Your task to perform on an android device: change the upload size in google photos Image 0: 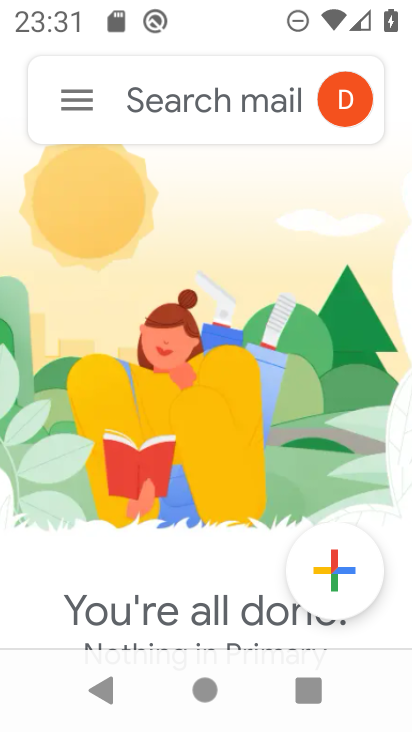
Step 0: press home button
Your task to perform on an android device: change the upload size in google photos Image 1: 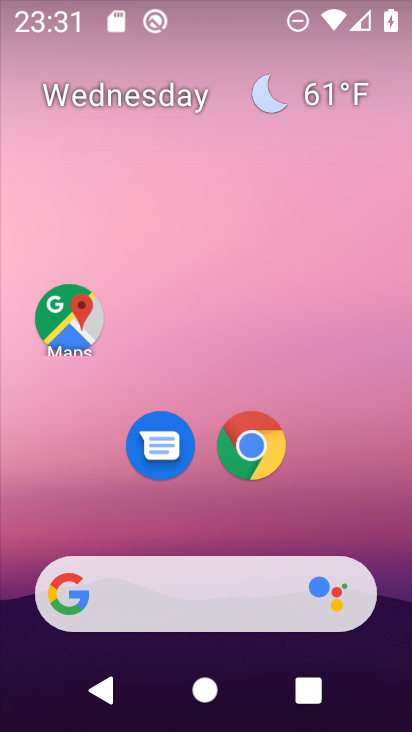
Step 1: drag from (373, 499) to (374, 133)
Your task to perform on an android device: change the upload size in google photos Image 2: 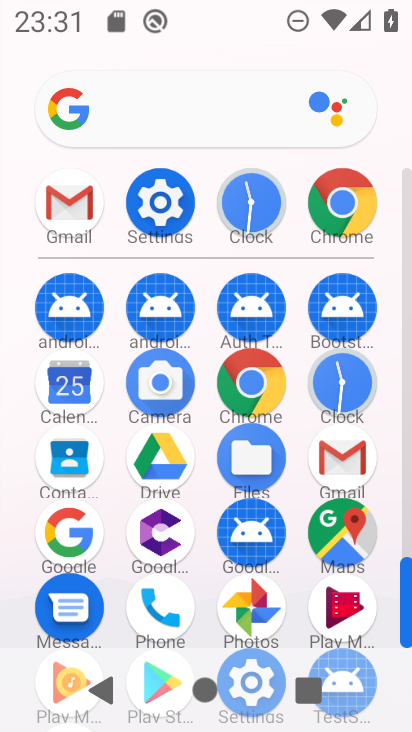
Step 2: click (256, 591)
Your task to perform on an android device: change the upload size in google photos Image 3: 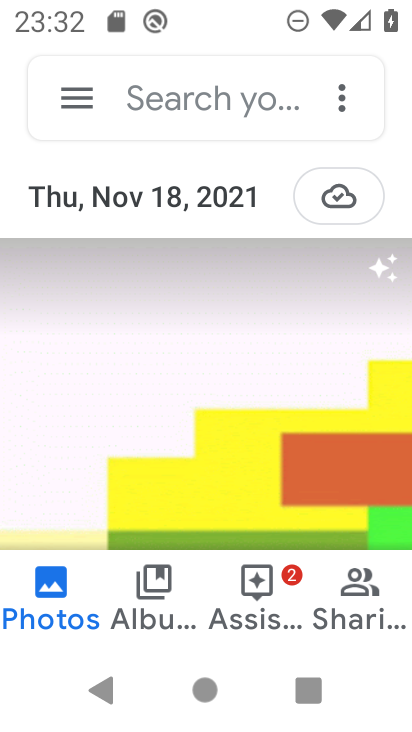
Step 3: click (89, 107)
Your task to perform on an android device: change the upload size in google photos Image 4: 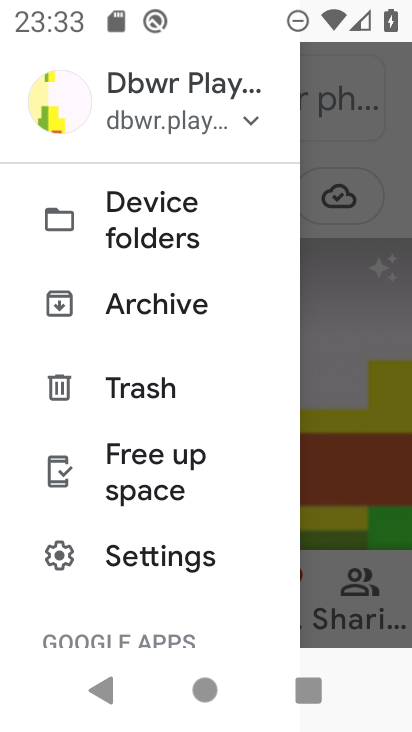
Step 4: click (161, 568)
Your task to perform on an android device: change the upload size in google photos Image 5: 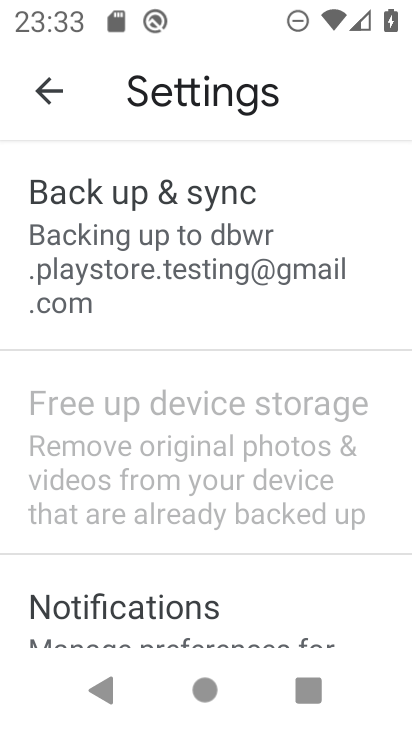
Step 5: click (183, 286)
Your task to perform on an android device: change the upload size in google photos Image 6: 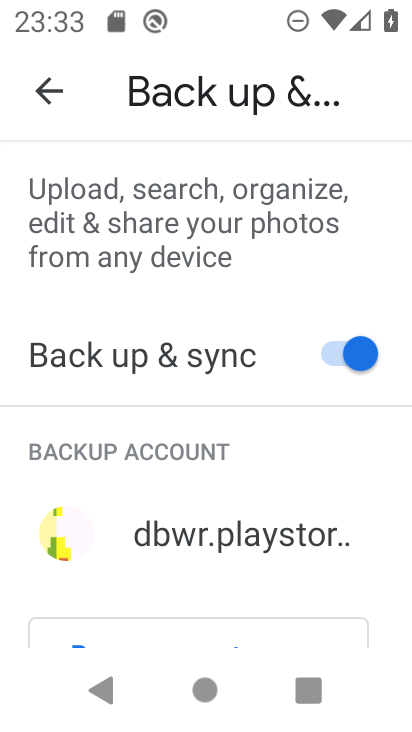
Step 6: drag from (153, 435) to (196, 138)
Your task to perform on an android device: change the upload size in google photos Image 7: 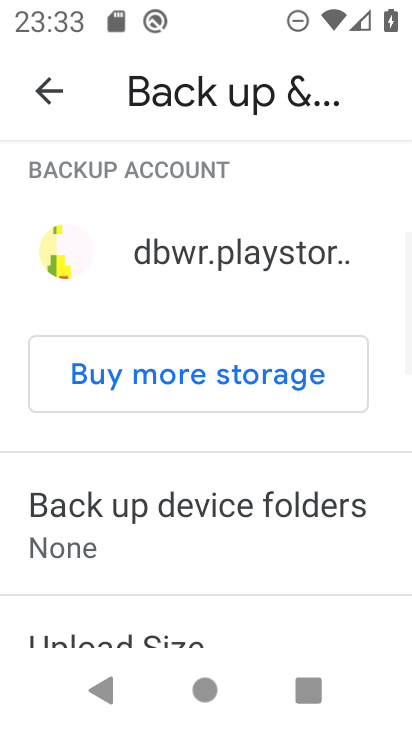
Step 7: drag from (211, 506) to (206, 257)
Your task to perform on an android device: change the upload size in google photos Image 8: 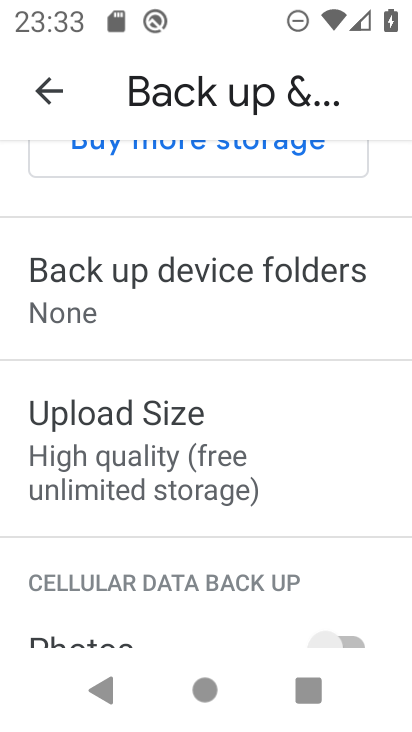
Step 8: drag from (186, 567) to (211, 251)
Your task to perform on an android device: change the upload size in google photos Image 9: 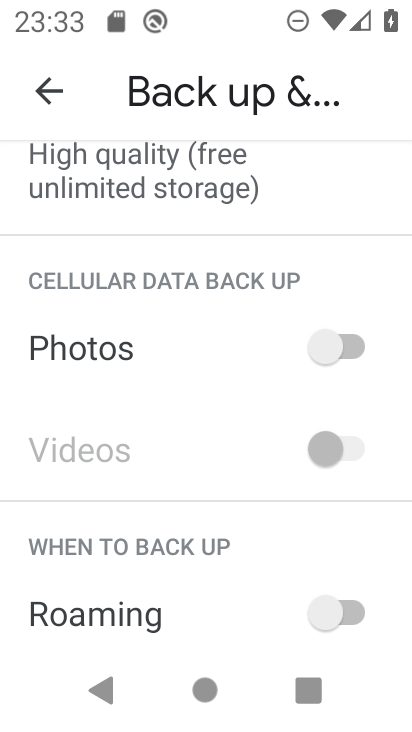
Step 9: drag from (197, 563) to (201, 312)
Your task to perform on an android device: change the upload size in google photos Image 10: 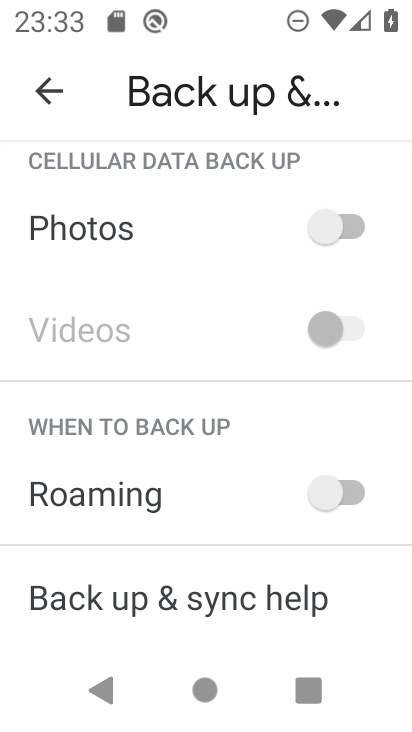
Step 10: drag from (219, 524) to (220, 208)
Your task to perform on an android device: change the upload size in google photos Image 11: 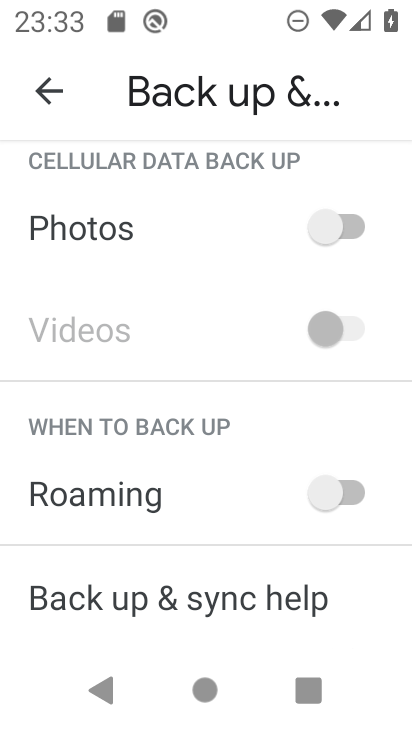
Step 11: drag from (204, 205) to (232, 586)
Your task to perform on an android device: change the upload size in google photos Image 12: 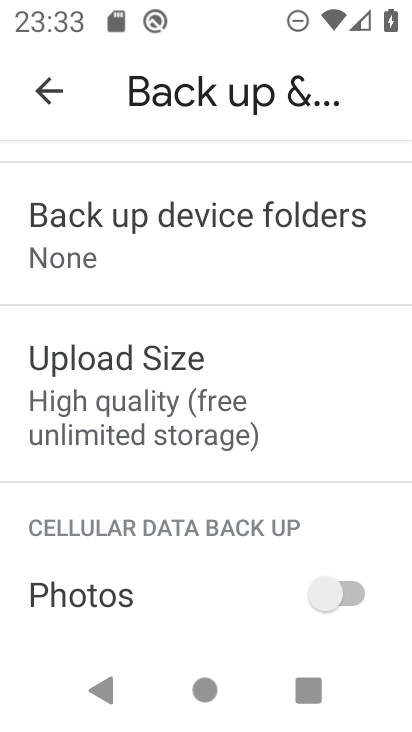
Step 12: click (232, 391)
Your task to perform on an android device: change the upload size in google photos Image 13: 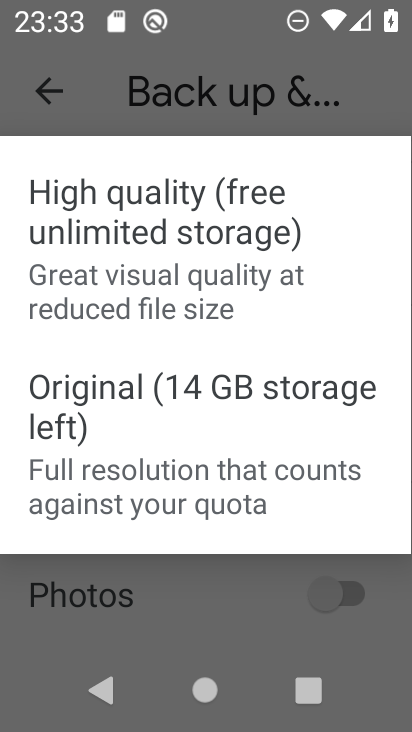
Step 13: click (200, 426)
Your task to perform on an android device: change the upload size in google photos Image 14: 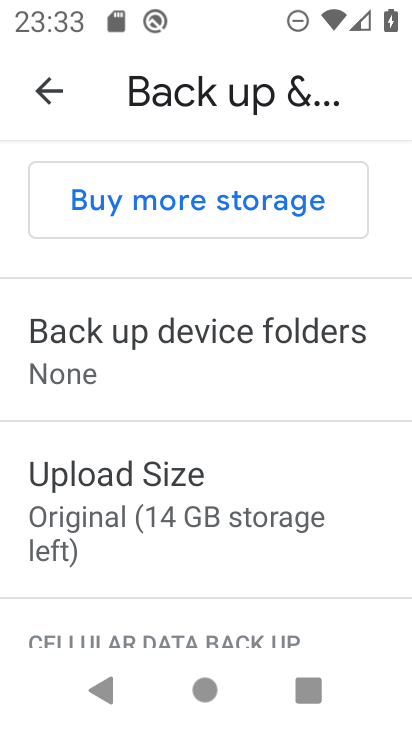
Step 14: task complete